Your task to perform on an android device: toggle airplane mode Image 0: 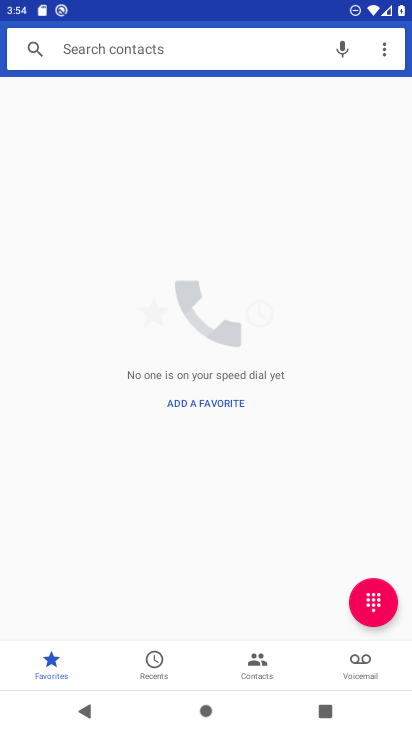
Step 0: press home button
Your task to perform on an android device: toggle airplane mode Image 1: 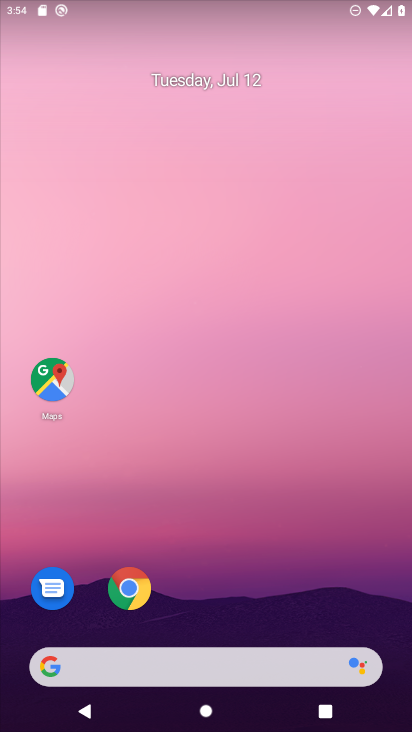
Step 1: drag from (280, 618) to (292, 34)
Your task to perform on an android device: toggle airplane mode Image 2: 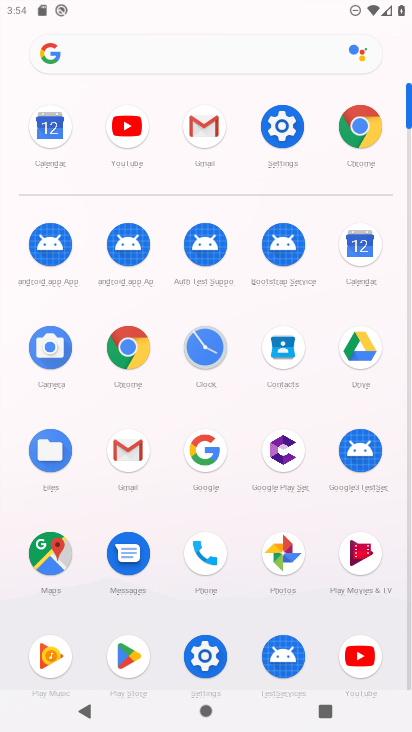
Step 2: click (293, 123)
Your task to perform on an android device: toggle airplane mode Image 3: 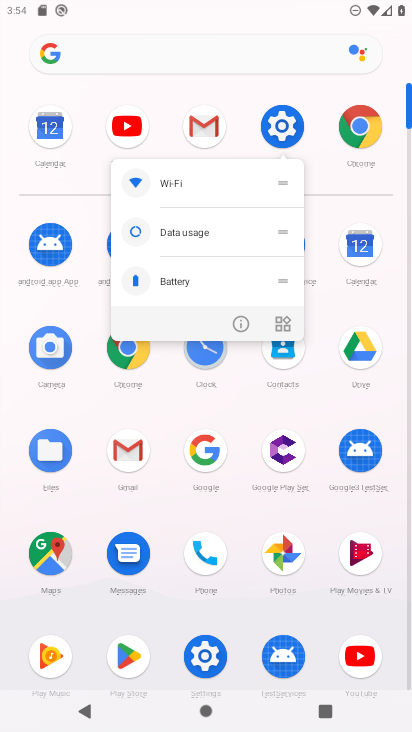
Step 3: click (293, 123)
Your task to perform on an android device: toggle airplane mode Image 4: 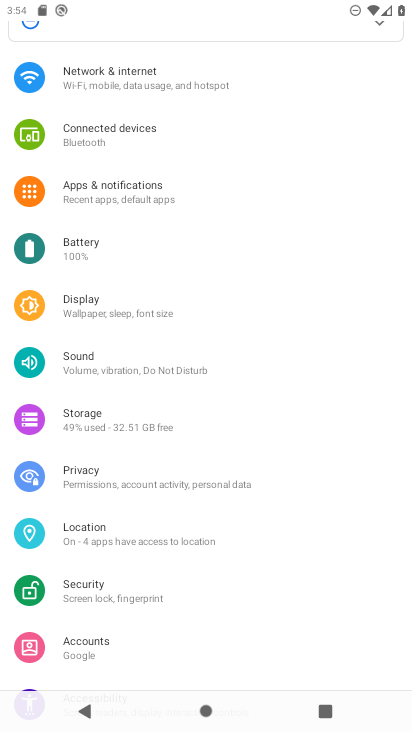
Step 4: click (139, 86)
Your task to perform on an android device: toggle airplane mode Image 5: 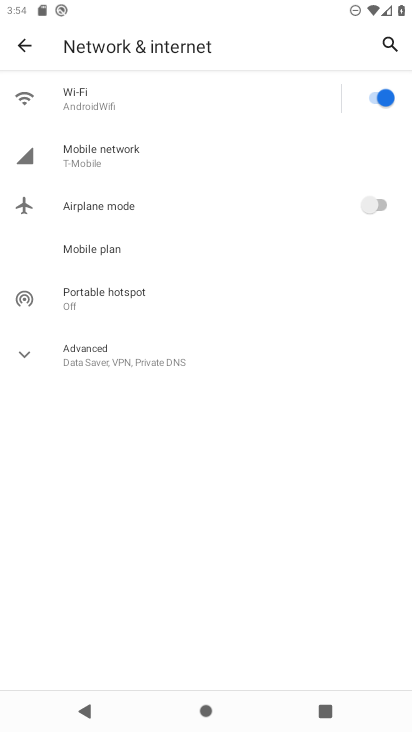
Step 5: click (377, 207)
Your task to perform on an android device: toggle airplane mode Image 6: 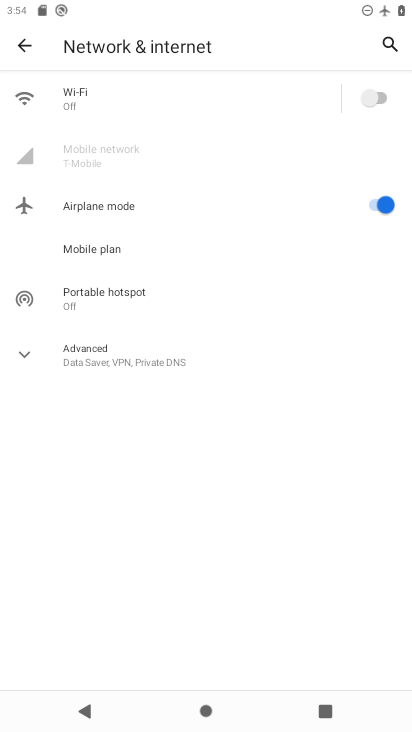
Step 6: task complete